Your task to perform on an android device: check battery use Image 0: 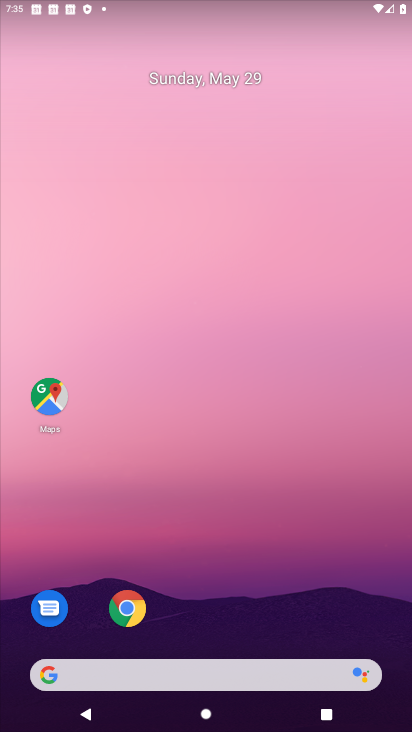
Step 0: drag from (180, 505) to (156, 144)
Your task to perform on an android device: check battery use Image 1: 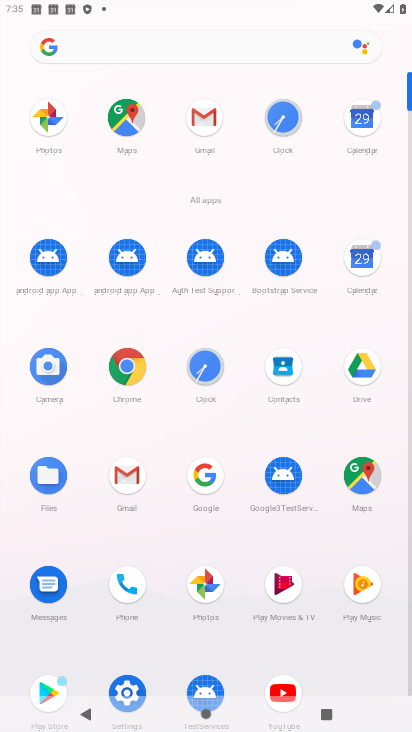
Step 1: click (133, 684)
Your task to perform on an android device: check battery use Image 2: 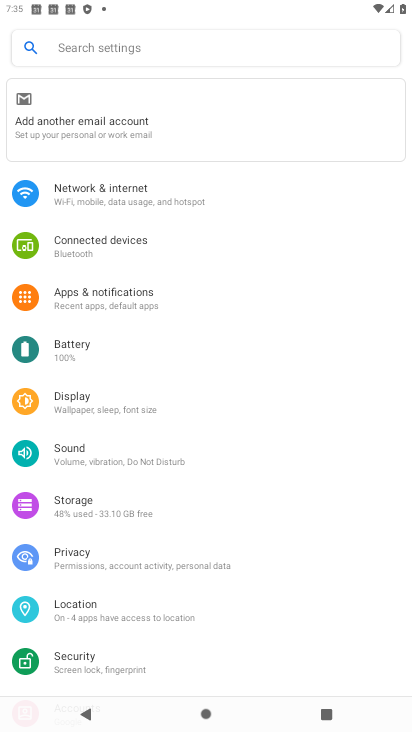
Step 2: click (65, 344)
Your task to perform on an android device: check battery use Image 3: 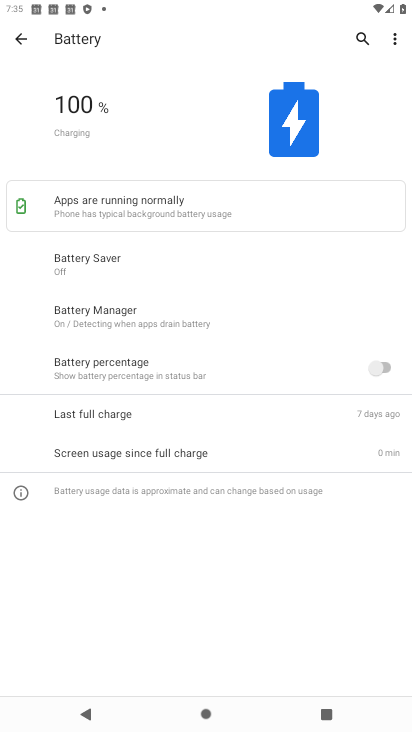
Step 3: task complete